Your task to perform on an android device: Search for "bose soundlink" on costco.com, select the first entry, and add it to the cart. Image 0: 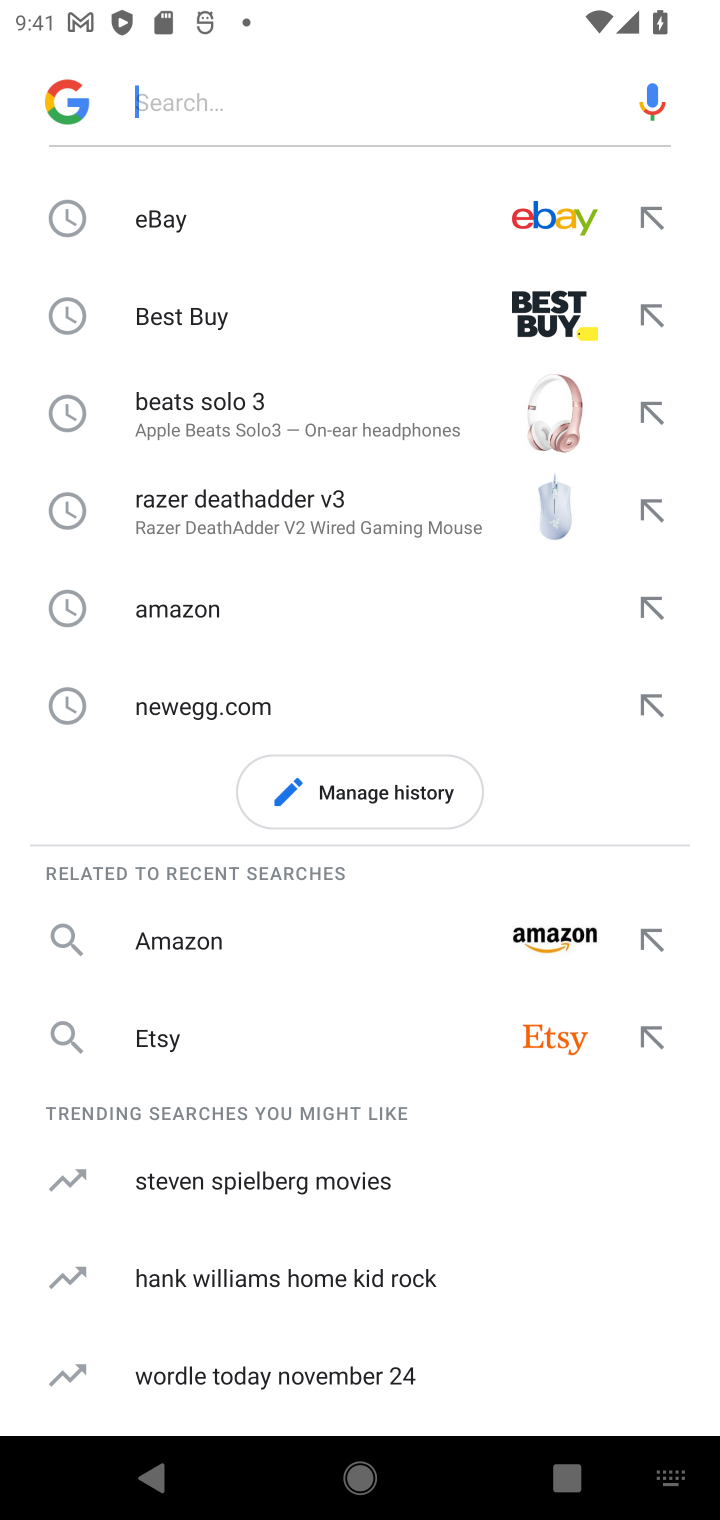
Step 0: press home button
Your task to perform on an android device: Search for "bose soundlink" on costco.com, select the first entry, and add it to the cart. Image 1: 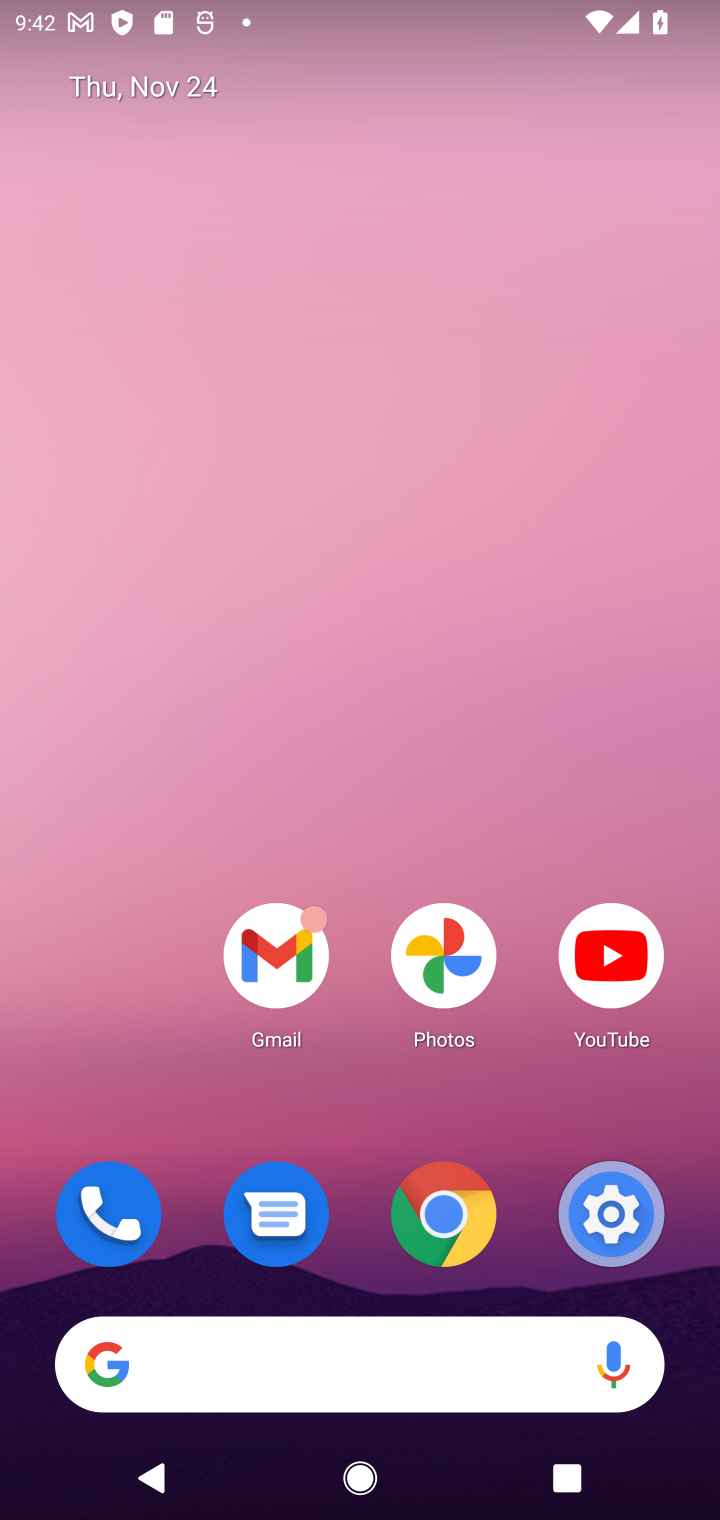
Step 1: click (348, 1406)
Your task to perform on an android device: Search for "bose soundlink" on costco.com, select the first entry, and add it to the cart. Image 2: 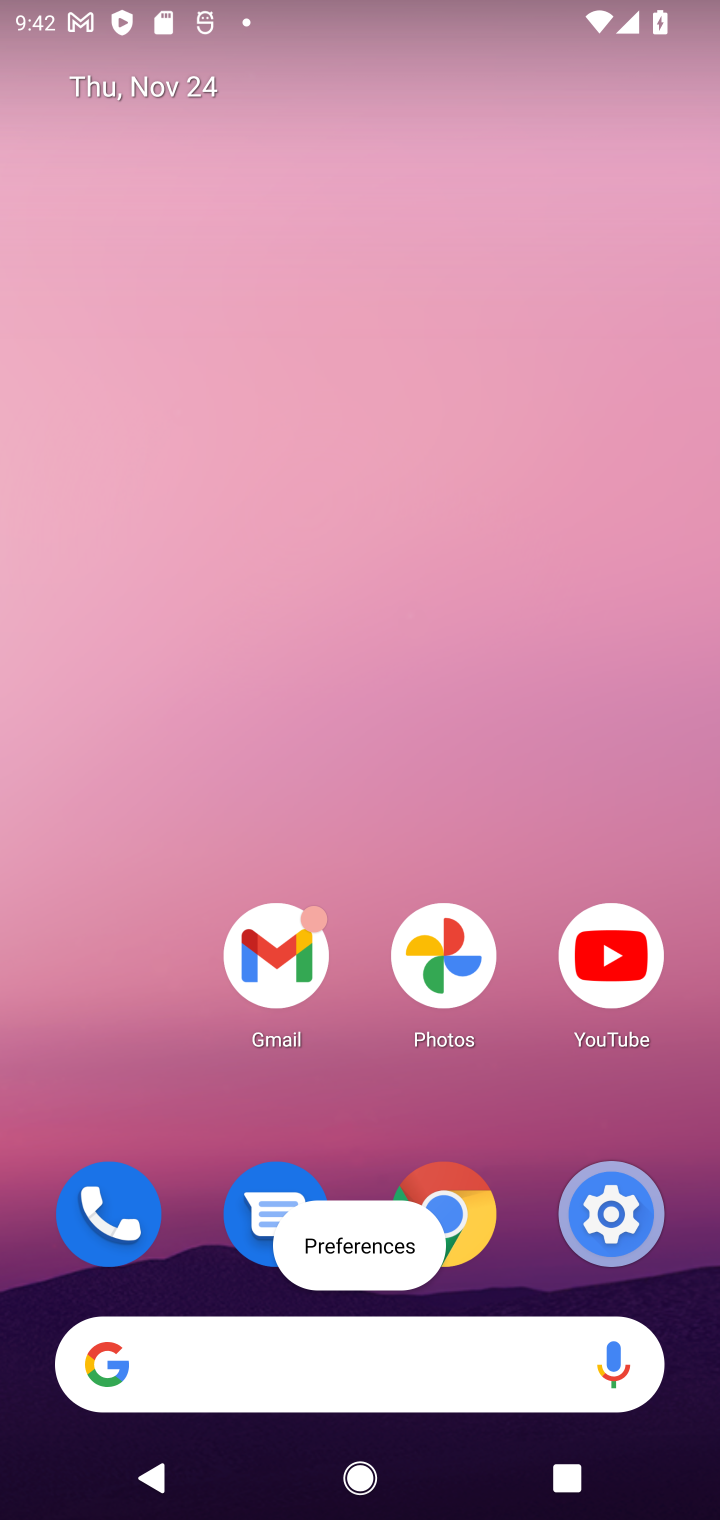
Step 2: type "costco.com"
Your task to perform on an android device: Search for "bose soundlink" on costco.com, select the first entry, and add it to the cart. Image 3: 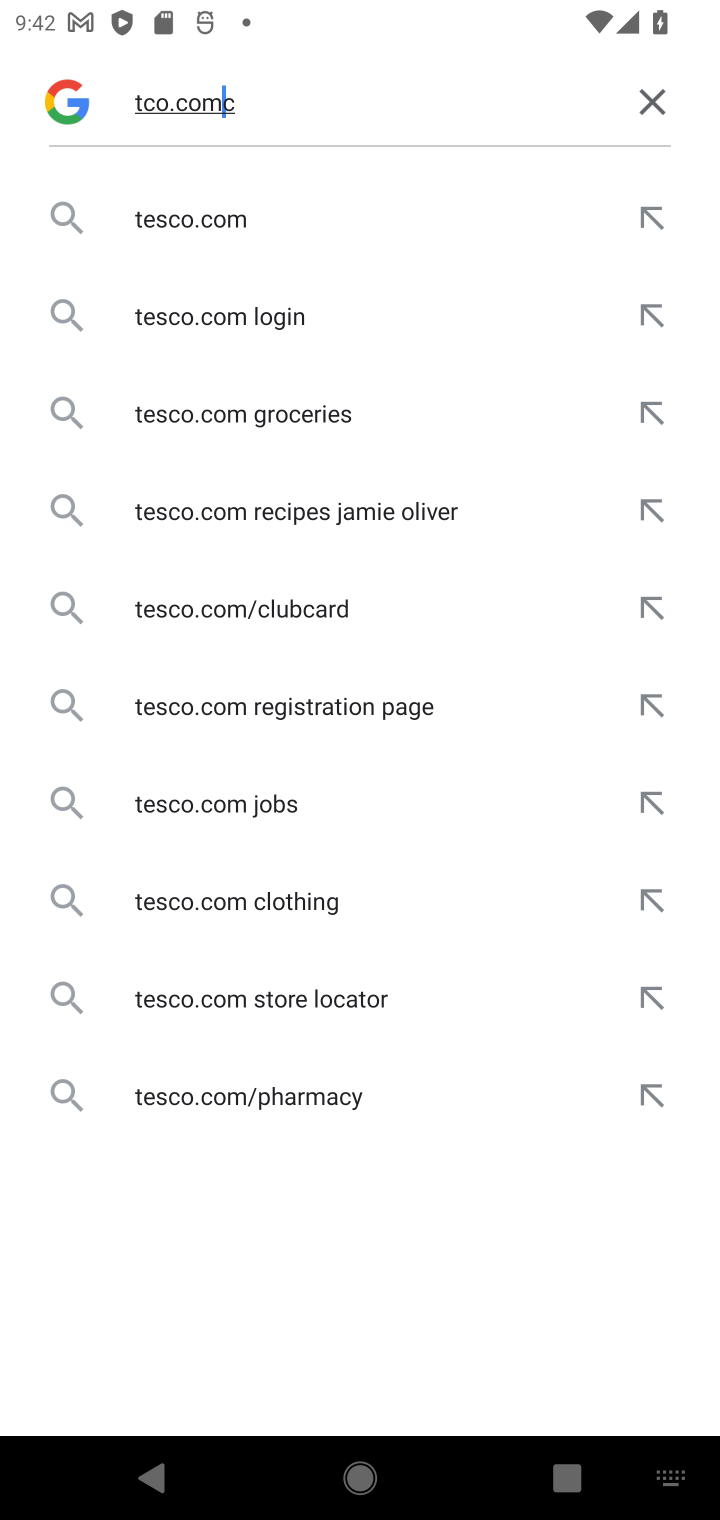
Step 3: click (671, 80)
Your task to perform on an android device: Search for "bose soundlink" on costco.com, select the first entry, and add it to the cart. Image 4: 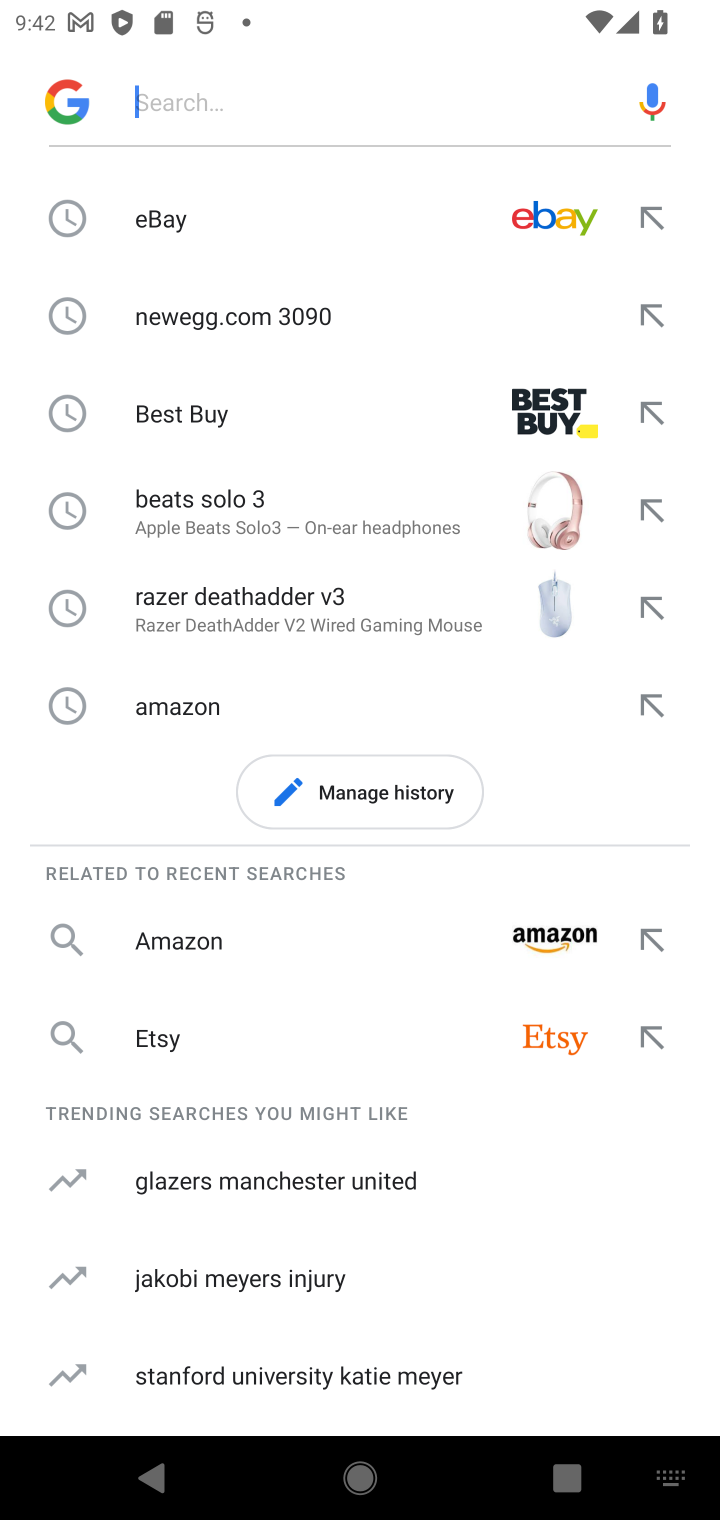
Step 4: type "costco"
Your task to perform on an android device: Search for "bose soundlink" on costco.com, select the first entry, and add it to the cart. Image 5: 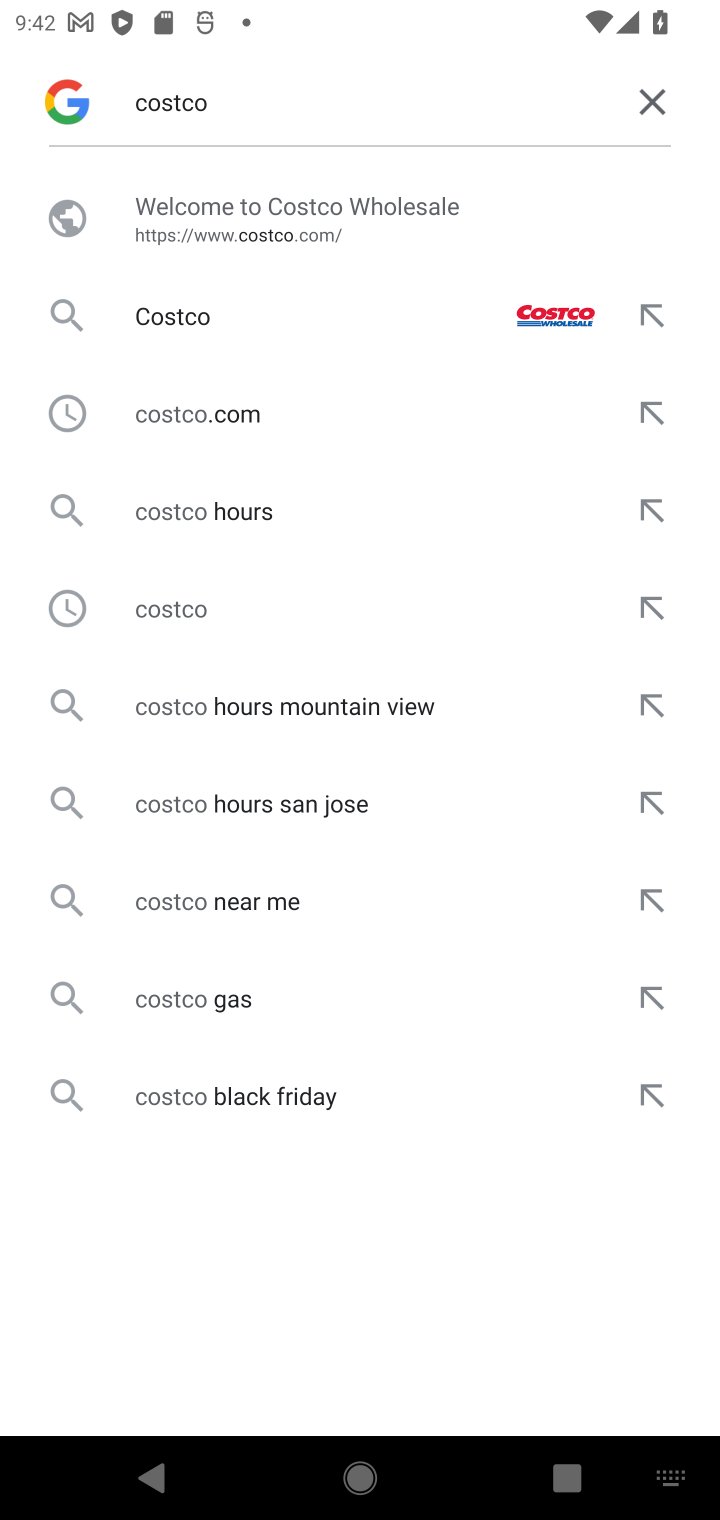
Step 5: click (250, 241)
Your task to perform on an android device: Search for "bose soundlink" on costco.com, select the first entry, and add it to the cart. Image 6: 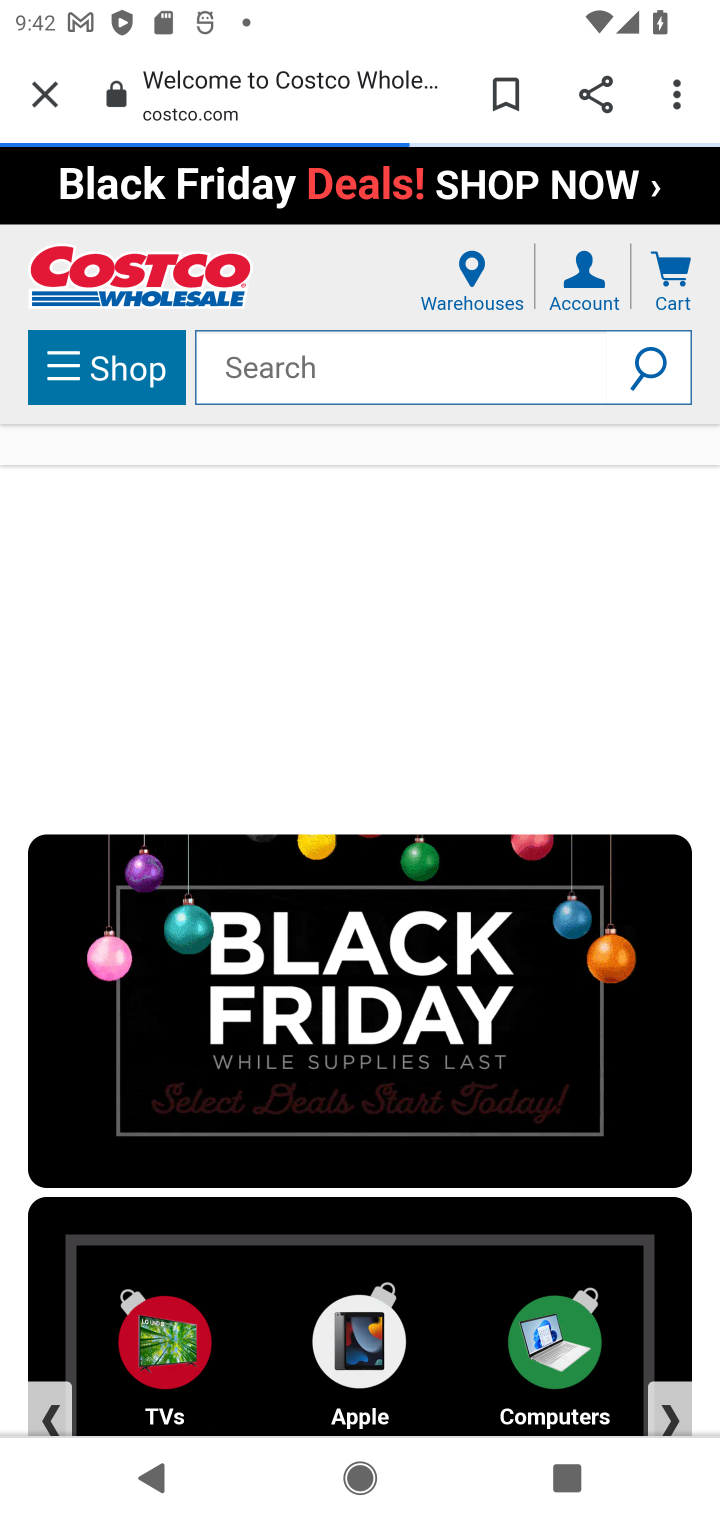
Step 6: click (317, 366)
Your task to perform on an android device: Search for "bose soundlink" on costco.com, select the first entry, and add it to the cart. Image 7: 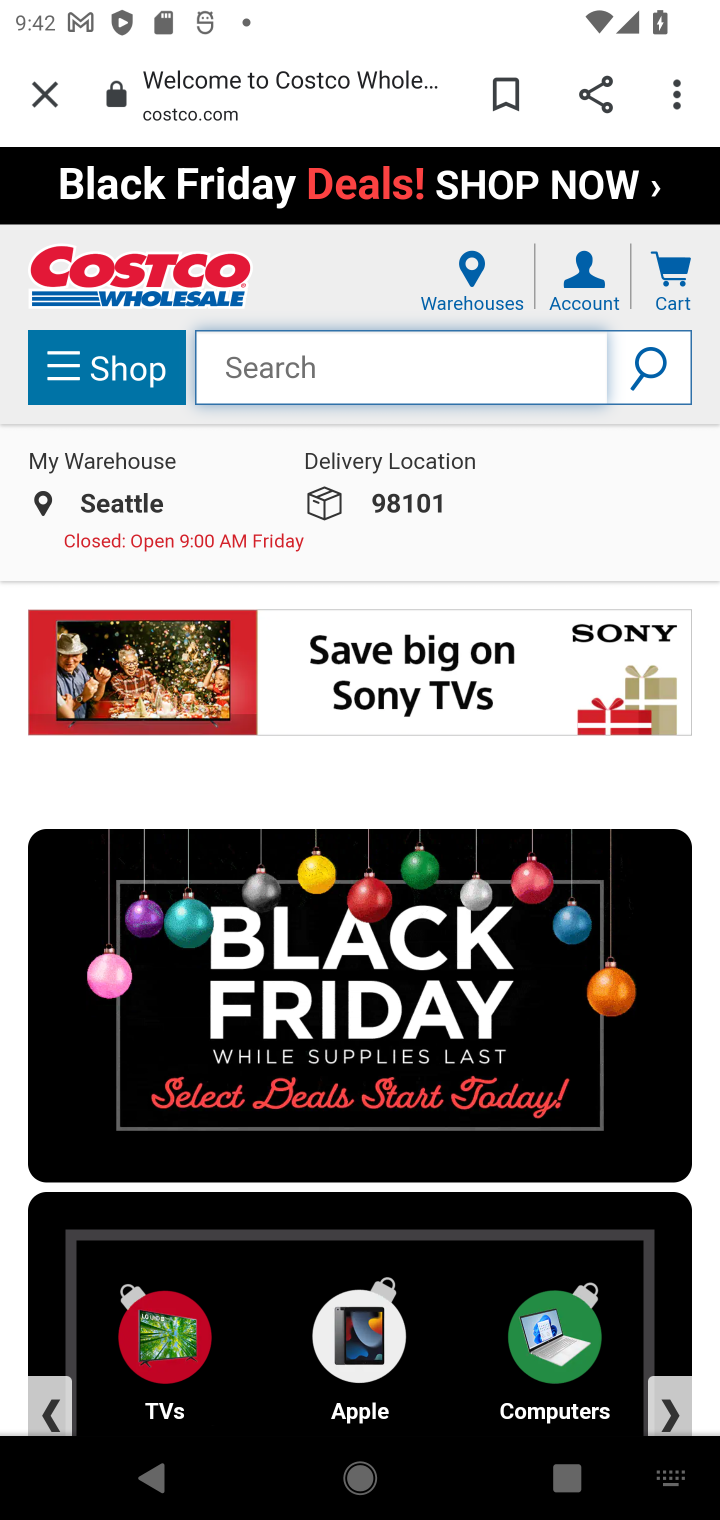
Step 7: type "bose soundlink"
Your task to perform on an android device: Search for "bose soundlink" on costco.com, select the first entry, and add it to the cart. Image 8: 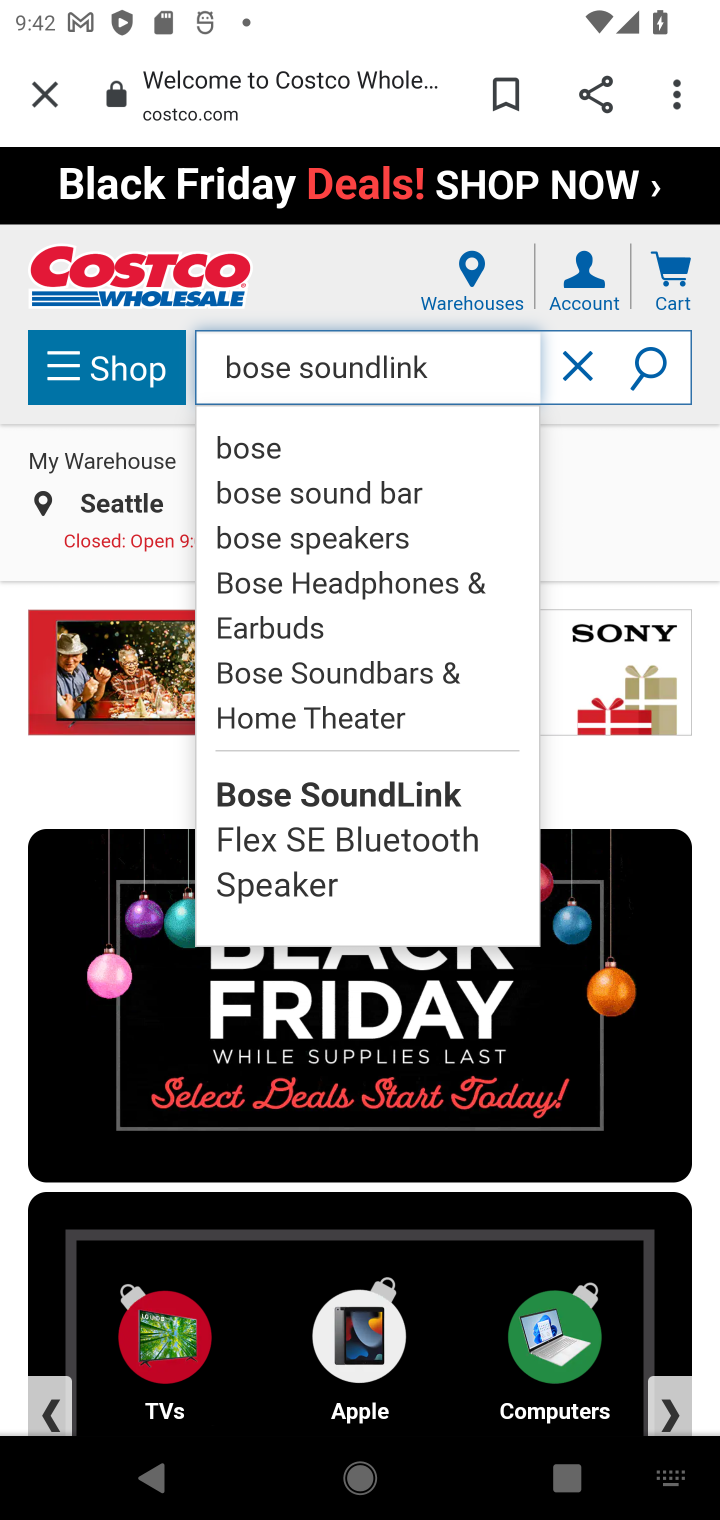
Step 8: click (638, 387)
Your task to perform on an android device: Search for "bose soundlink" on costco.com, select the first entry, and add it to the cart. Image 9: 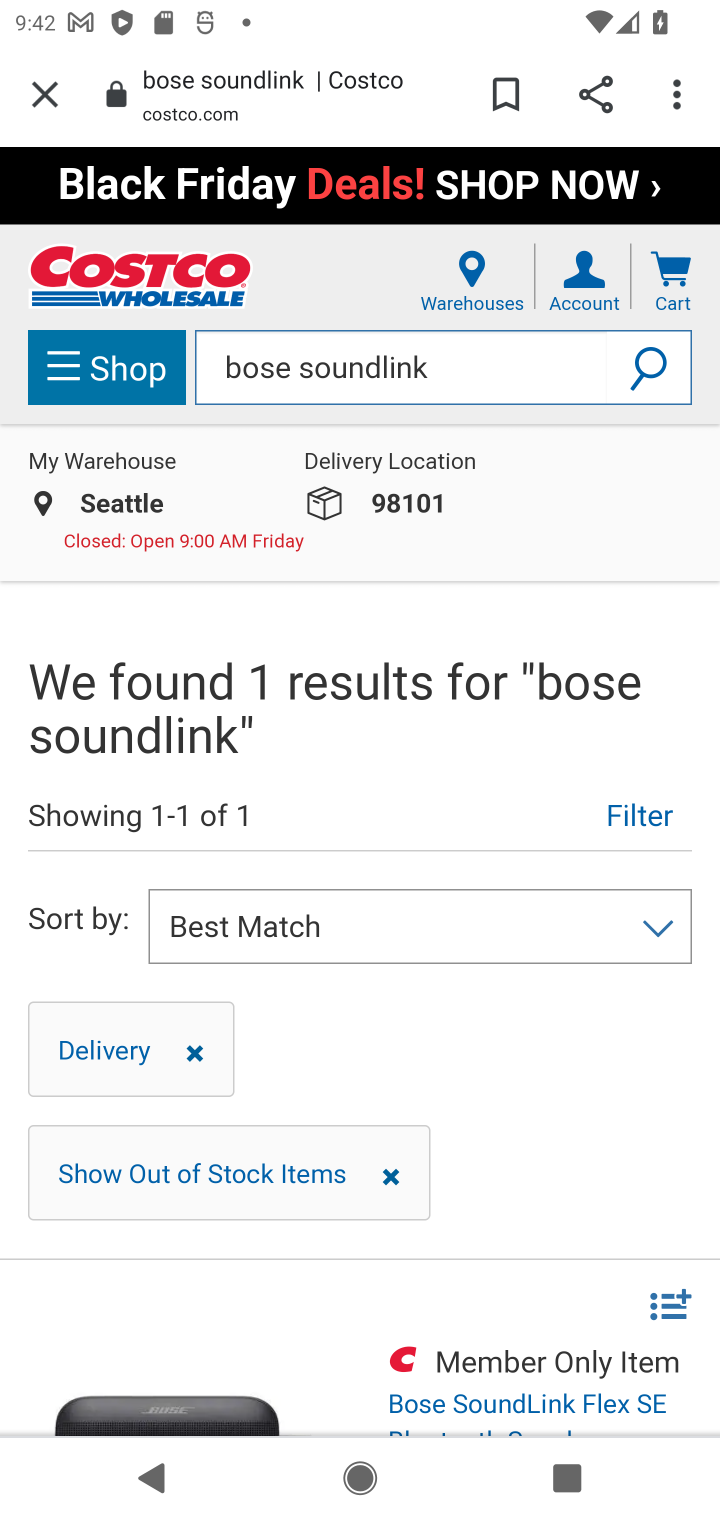
Step 9: task complete